Your task to perform on an android device: uninstall "Contacts" Image 0: 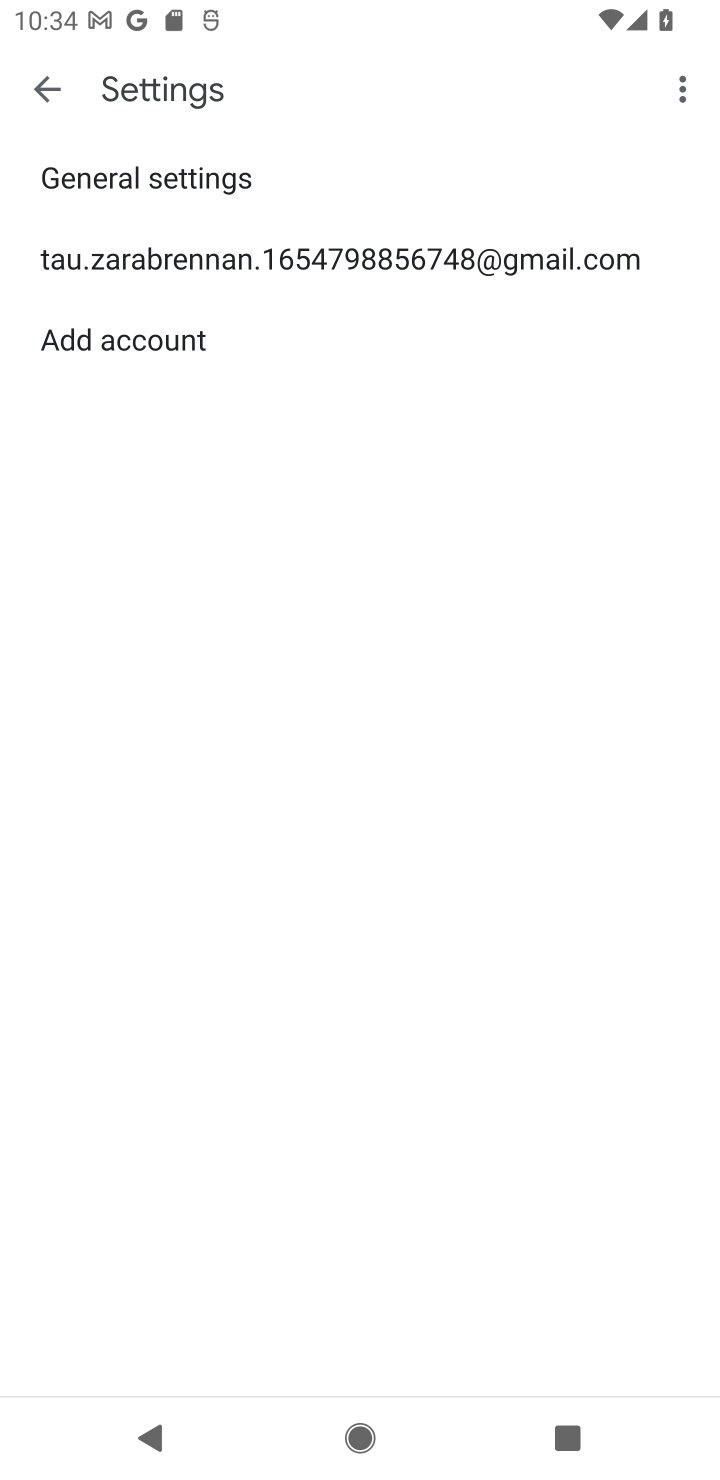
Step 0: press home button
Your task to perform on an android device: uninstall "Contacts" Image 1: 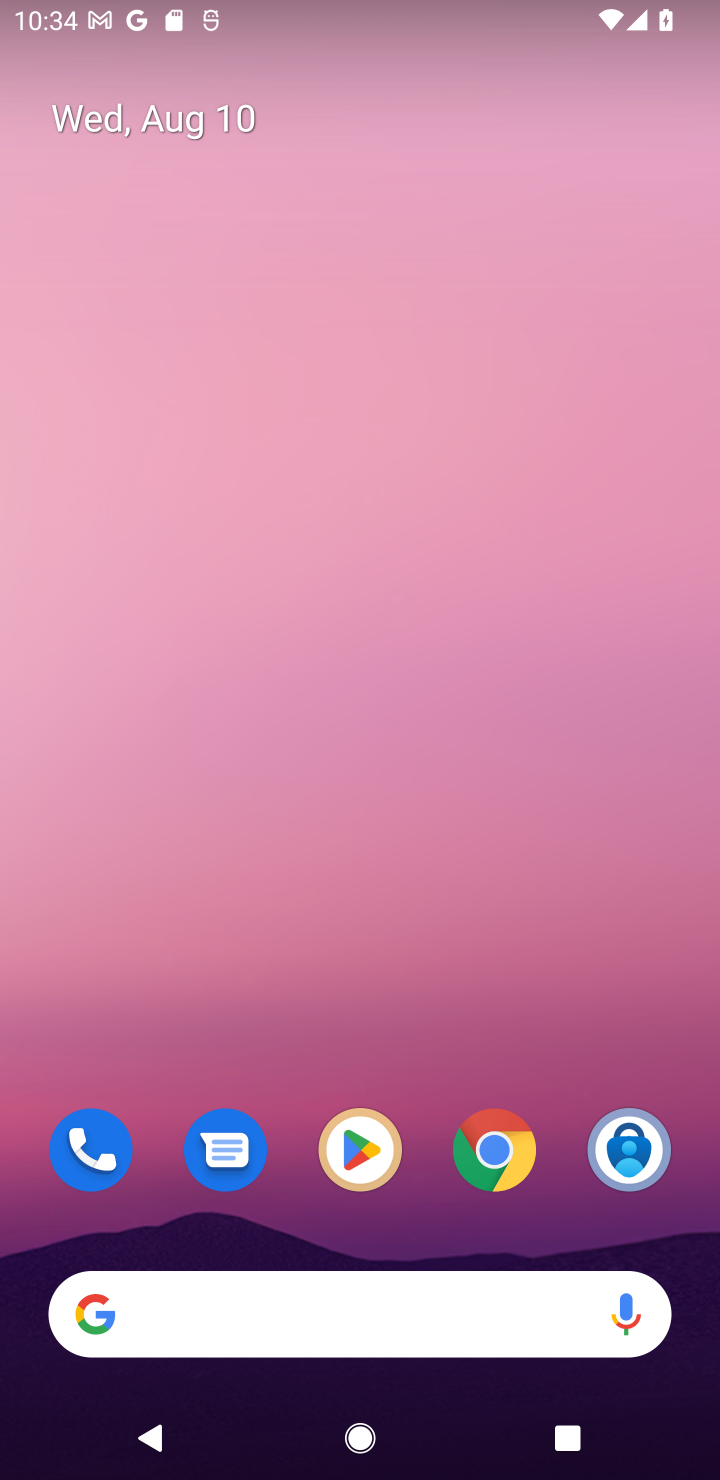
Step 1: click (355, 1126)
Your task to perform on an android device: uninstall "Contacts" Image 2: 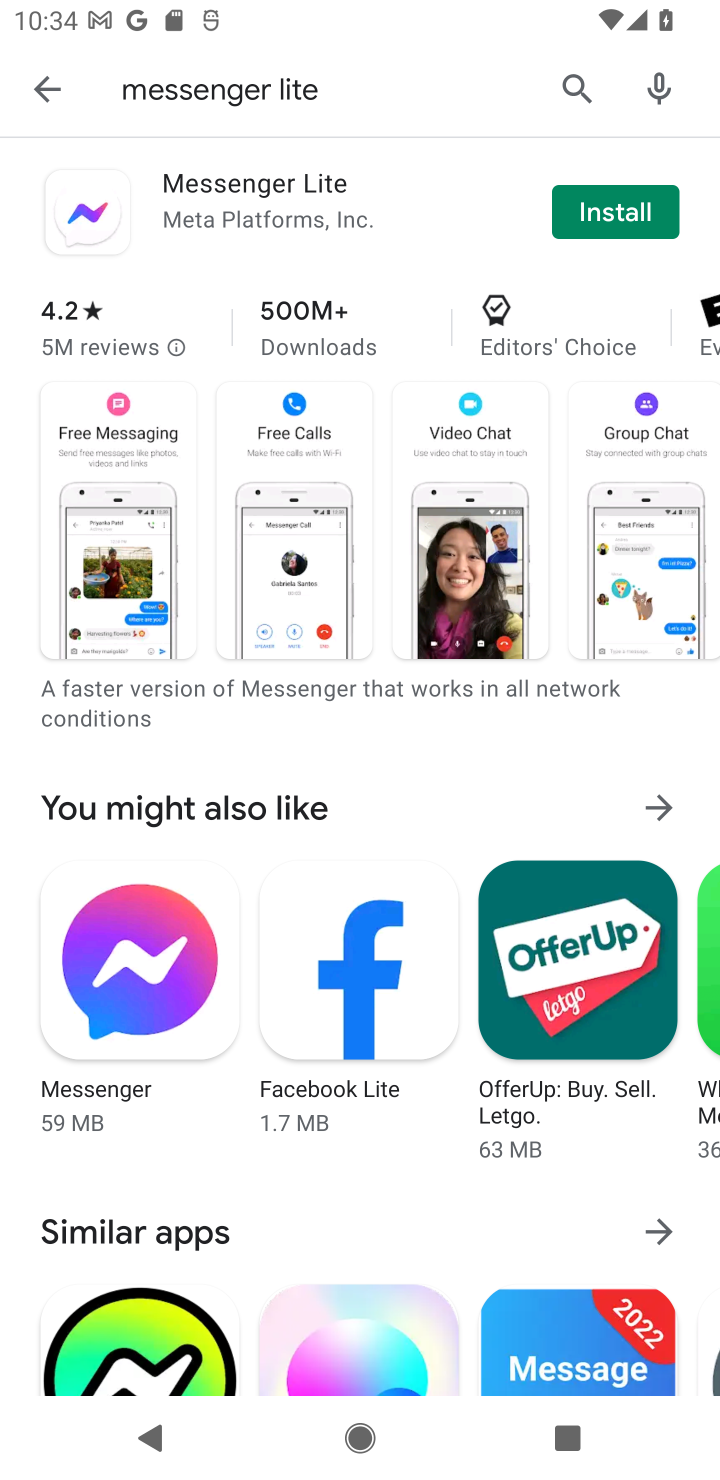
Step 2: click (568, 81)
Your task to perform on an android device: uninstall "Contacts" Image 3: 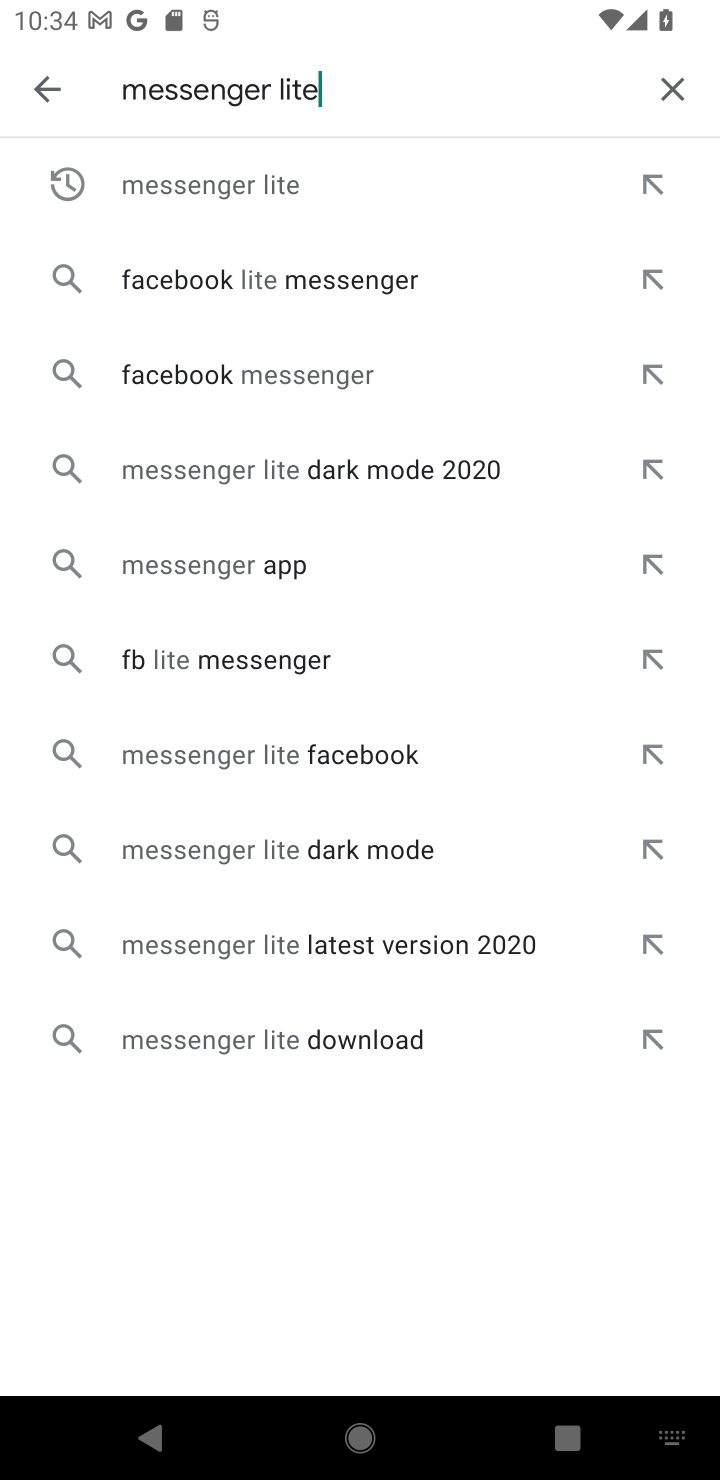
Step 3: click (672, 88)
Your task to perform on an android device: uninstall "Contacts" Image 4: 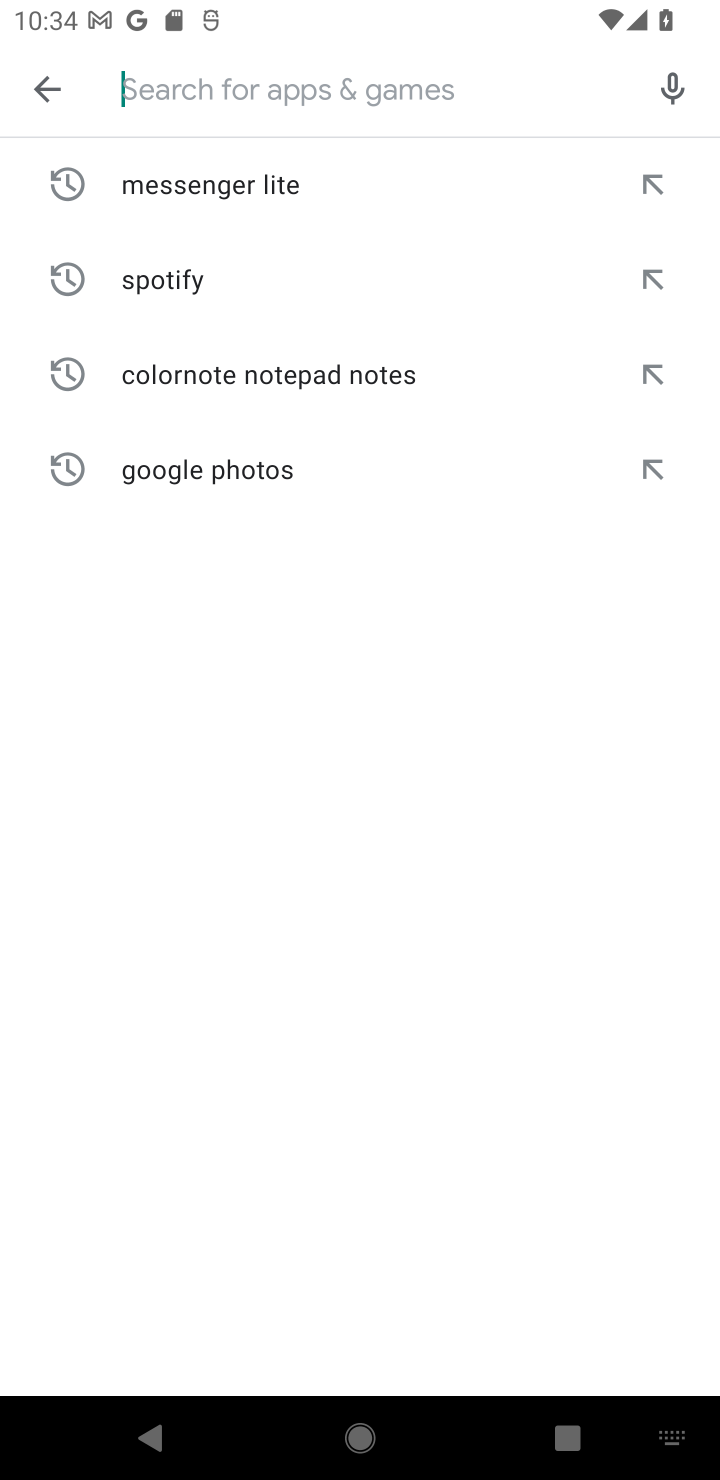
Step 4: click (679, 84)
Your task to perform on an android device: uninstall "Contacts" Image 5: 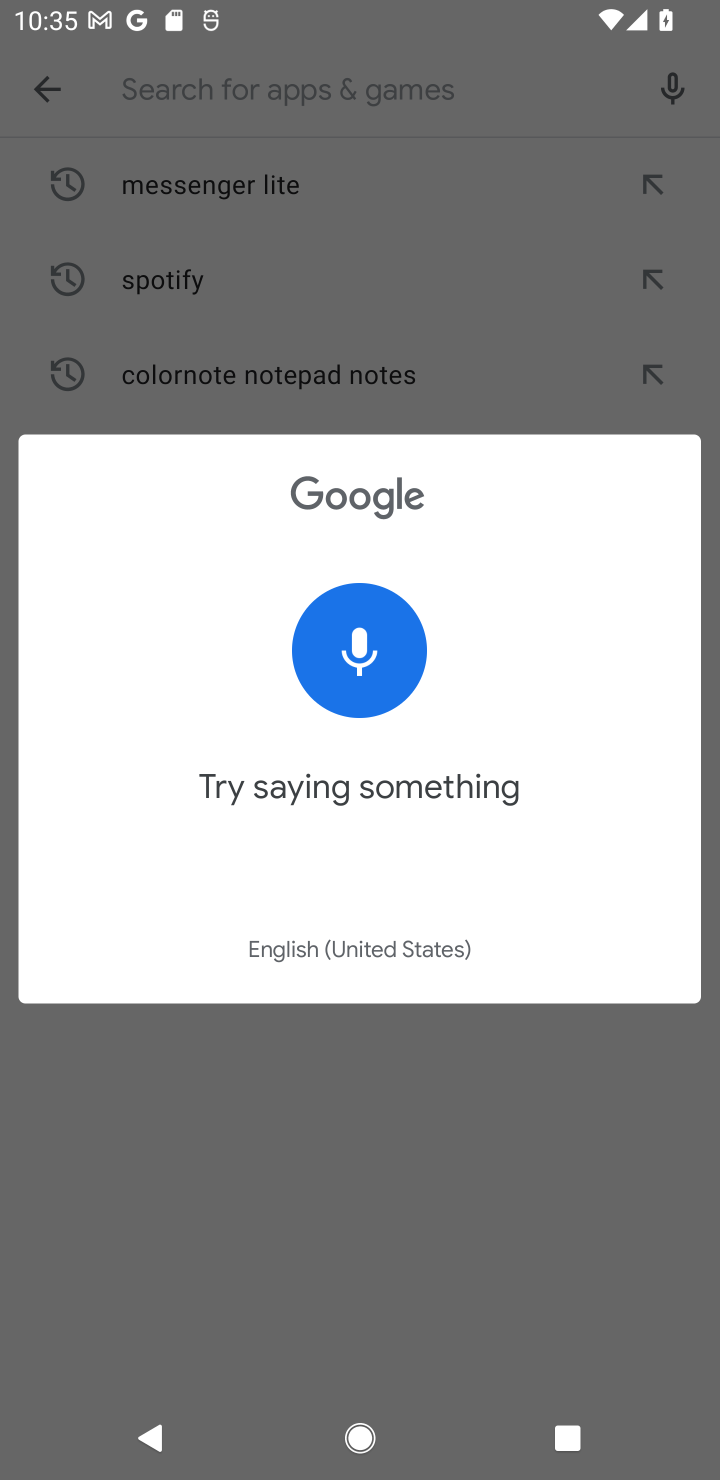
Step 5: type "Contacts"
Your task to perform on an android device: uninstall "Contacts" Image 6: 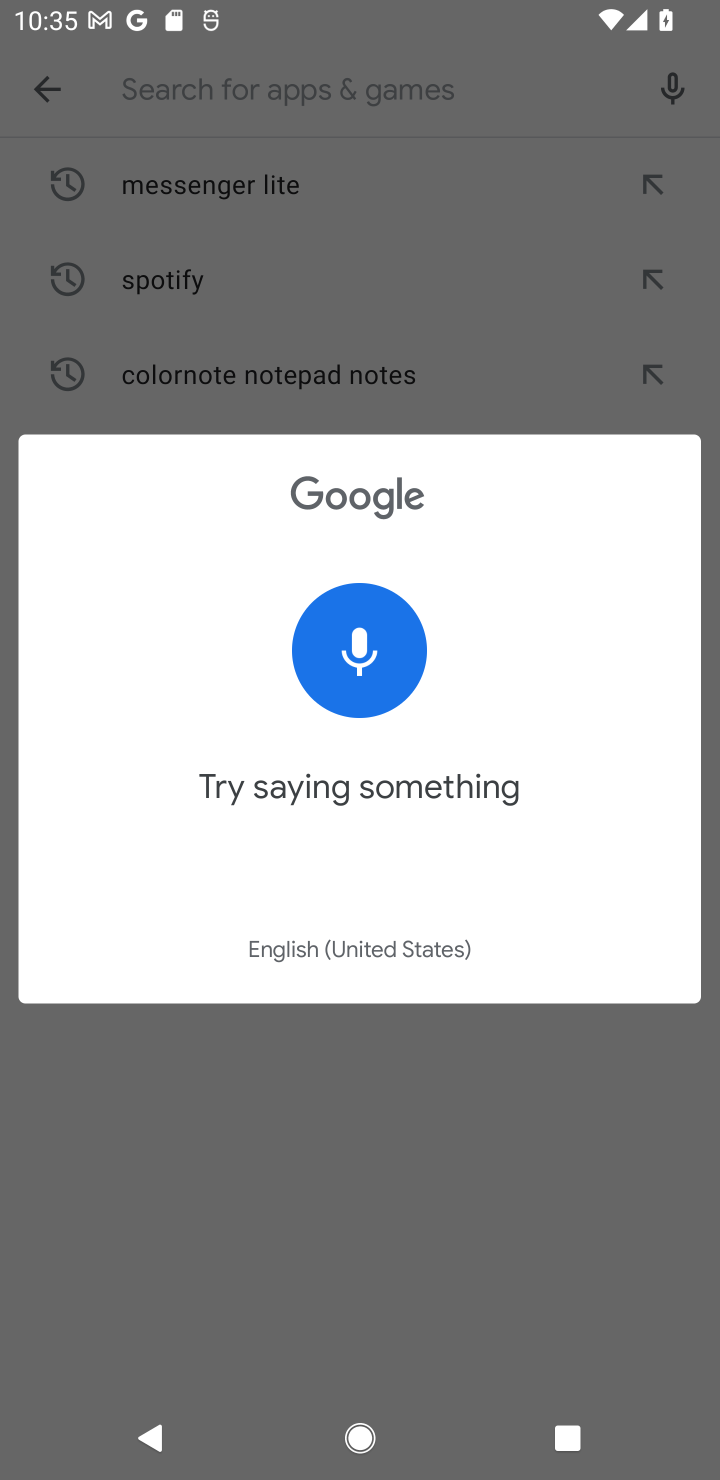
Step 6: click (521, 222)
Your task to perform on an android device: uninstall "Contacts" Image 7: 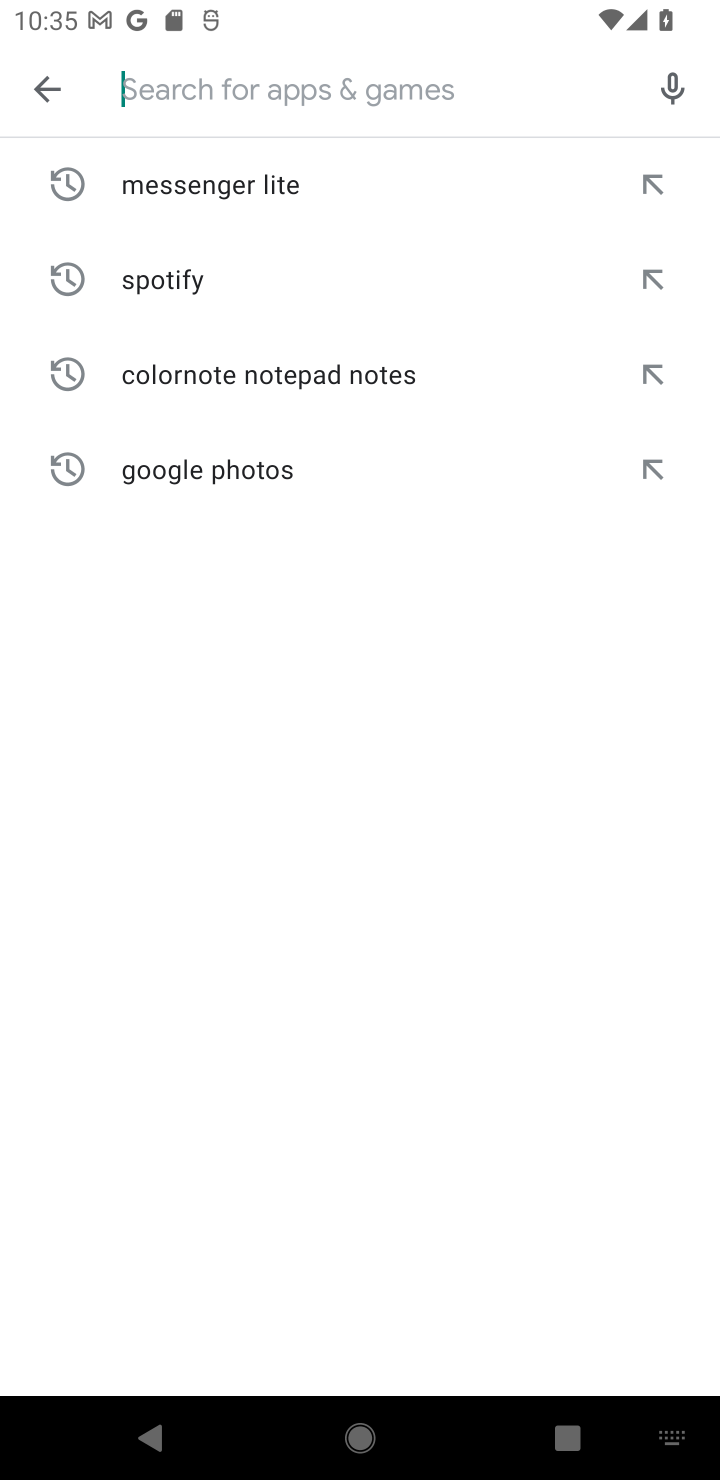
Step 7: click (400, 91)
Your task to perform on an android device: uninstall "Contacts" Image 8: 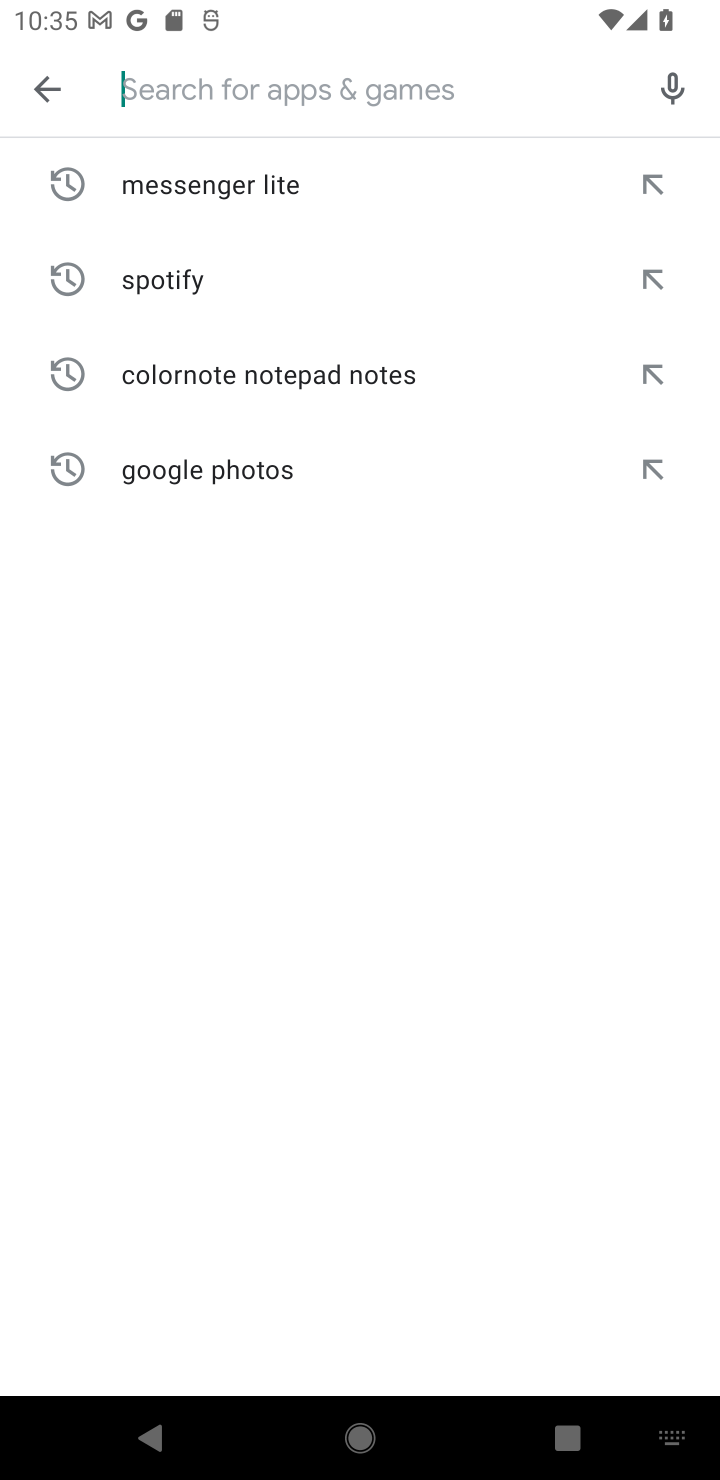
Step 8: type "Contacts"
Your task to perform on an android device: uninstall "Contacts" Image 9: 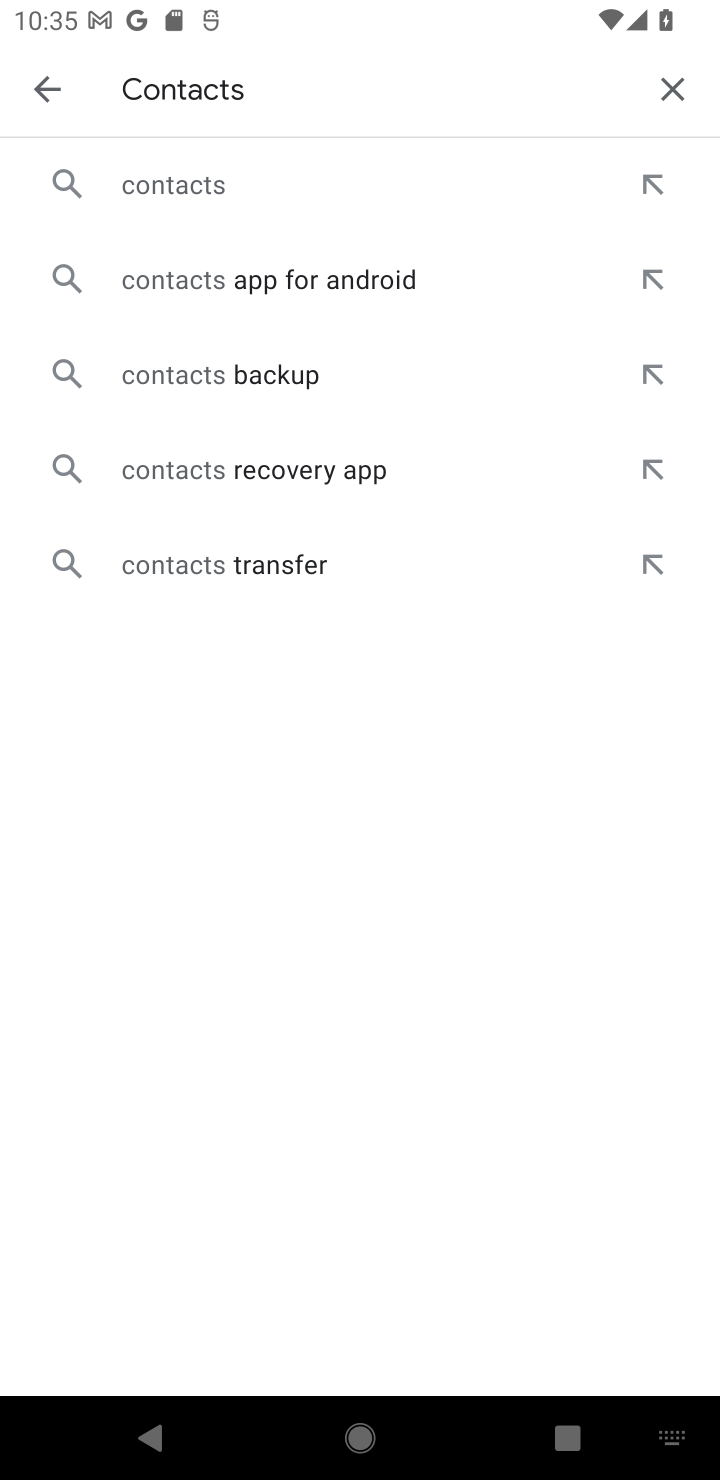
Step 9: click (298, 190)
Your task to perform on an android device: uninstall "Contacts" Image 10: 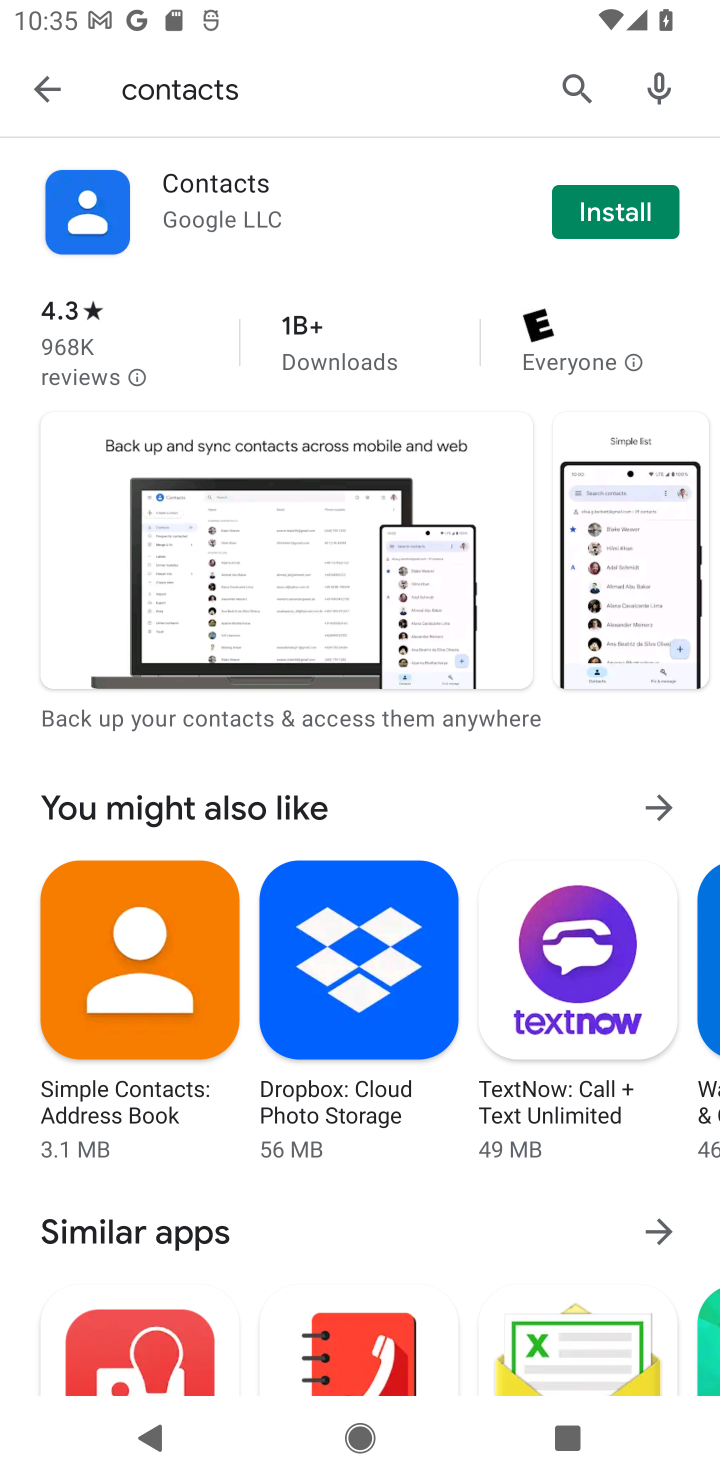
Step 10: task complete